Your task to perform on an android device: find snoozed emails in the gmail app Image 0: 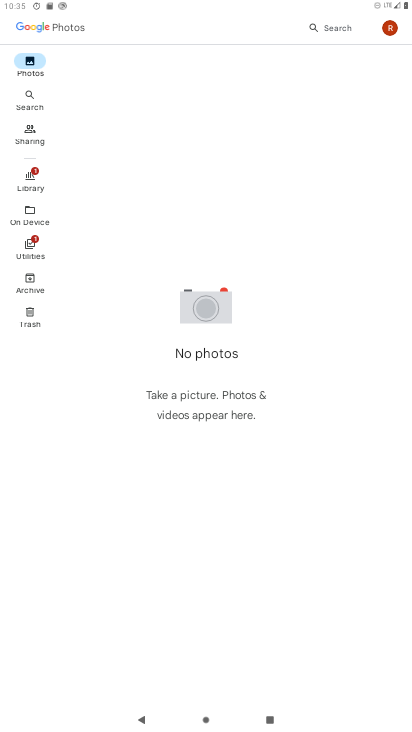
Step 0: drag from (277, 606) to (255, 267)
Your task to perform on an android device: find snoozed emails in the gmail app Image 1: 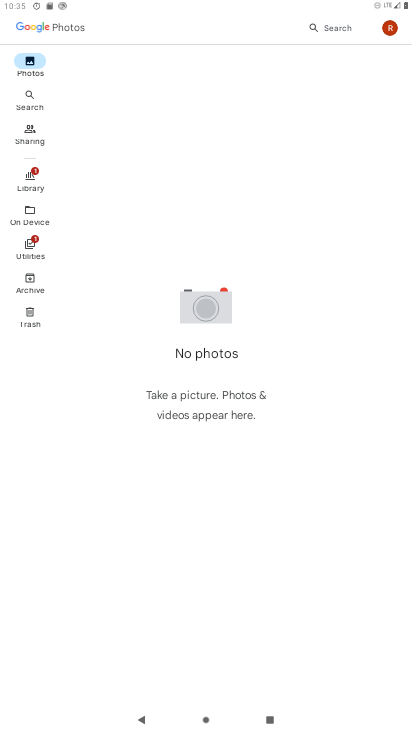
Step 1: press home button
Your task to perform on an android device: find snoozed emails in the gmail app Image 2: 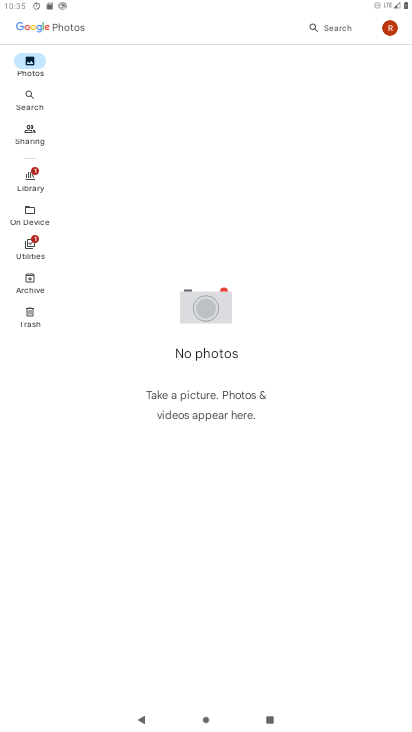
Step 2: press home button
Your task to perform on an android device: find snoozed emails in the gmail app Image 3: 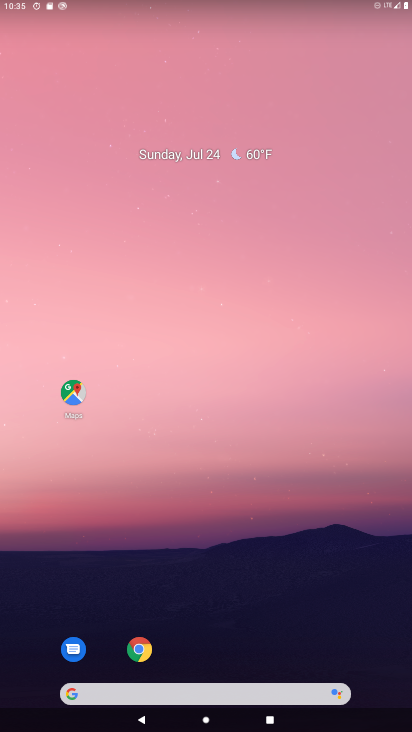
Step 3: drag from (374, 620) to (196, 111)
Your task to perform on an android device: find snoozed emails in the gmail app Image 4: 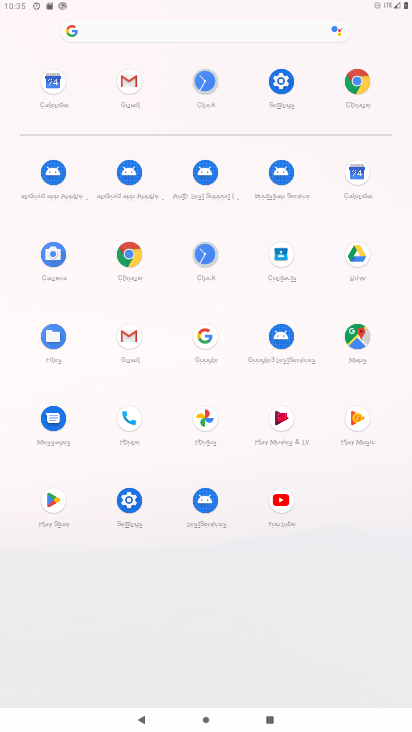
Step 4: click (123, 78)
Your task to perform on an android device: find snoozed emails in the gmail app Image 5: 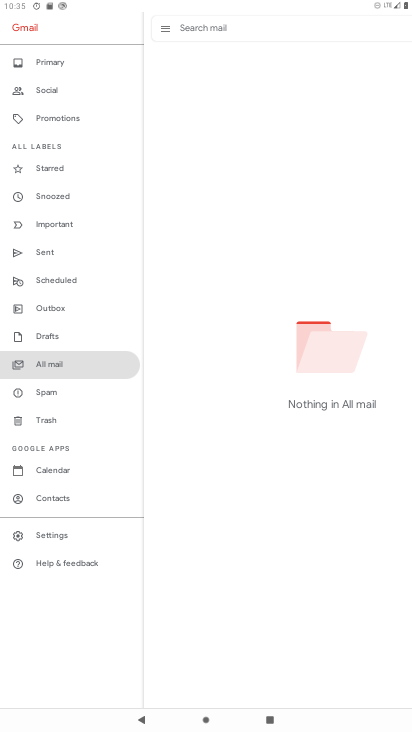
Step 5: click (59, 192)
Your task to perform on an android device: find snoozed emails in the gmail app Image 6: 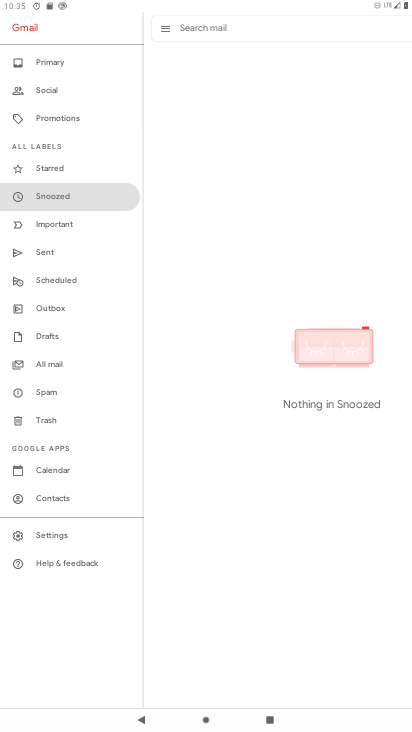
Step 6: task complete